Your task to perform on an android device: toggle notification dots Image 0: 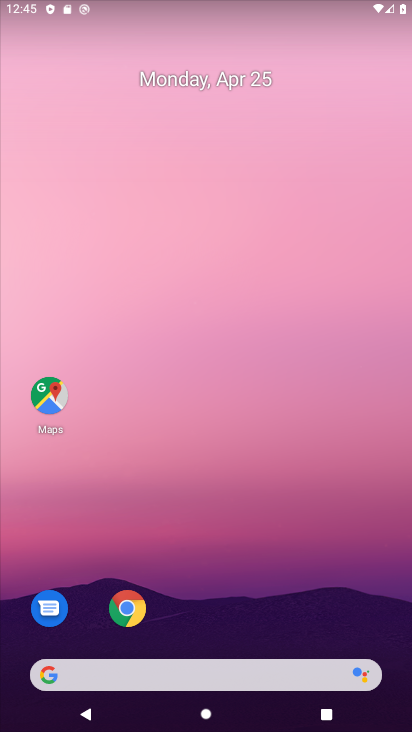
Step 0: drag from (139, 602) to (171, 125)
Your task to perform on an android device: toggle notification dots Image 1: 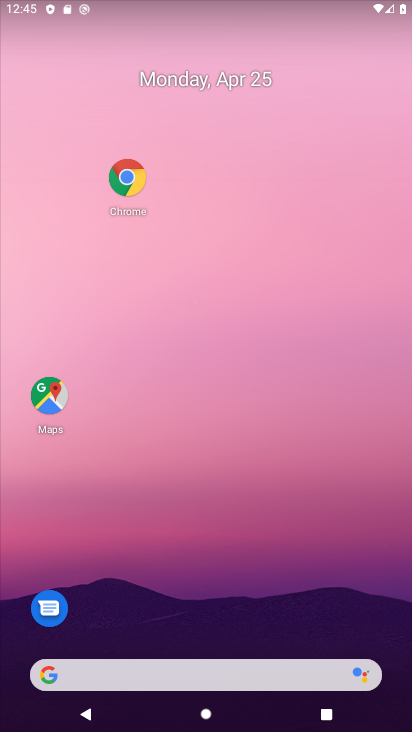
Step 1: drag from (288, 537) to (305, 58)
Your task to perform on an android device: toggle notification dots Image 2: 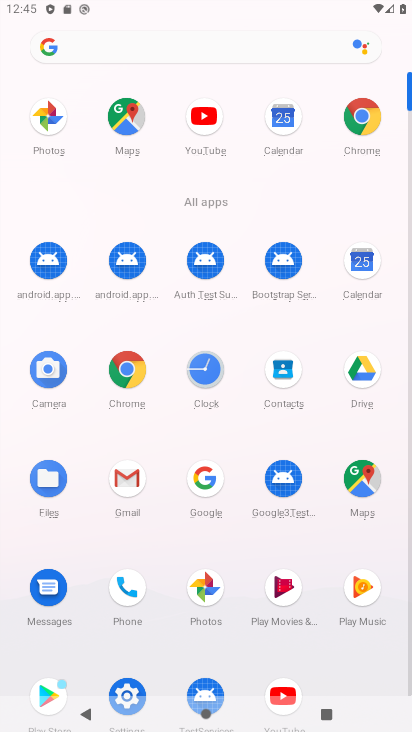
Step 2: click (131, 691)
Your task to perform on an android device: toggle notification dots Image 3: 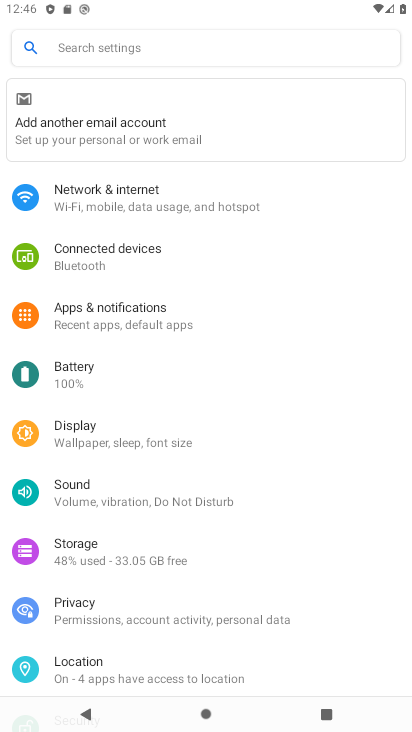
Step 3: drag from (281, 580) to (240, 232)
Your task to perform on an android device: toggle notification dots Image 4: 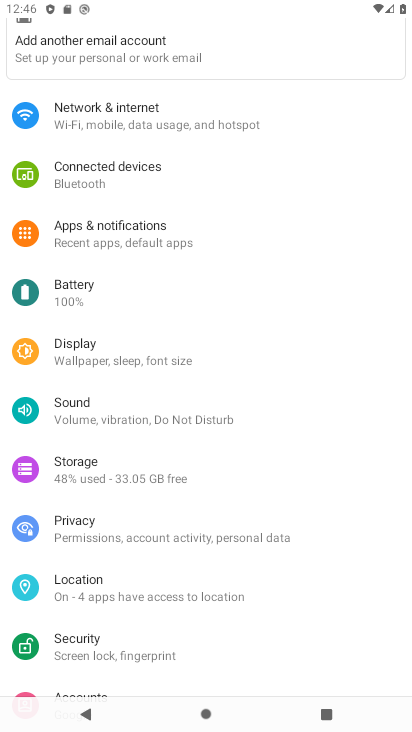
Step 4: drag from (240, 555) to (209, 99)
Your task to perform on an android device: toggle notification dots Image 5: 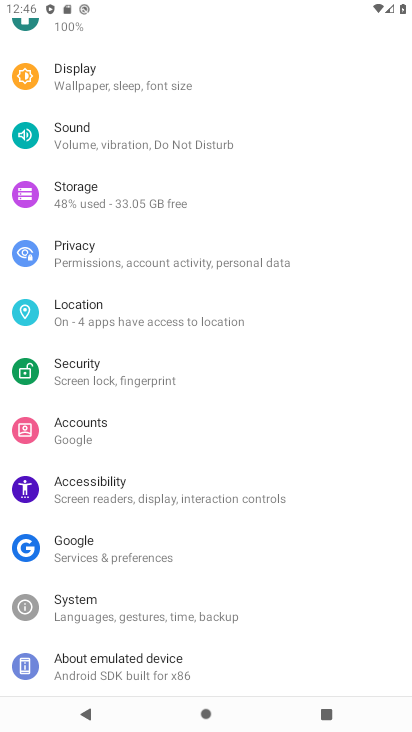
Step 5: drag from (154, 163) to (155, 636)
Your task to perform on an android device: toggle notification dots Image 6: 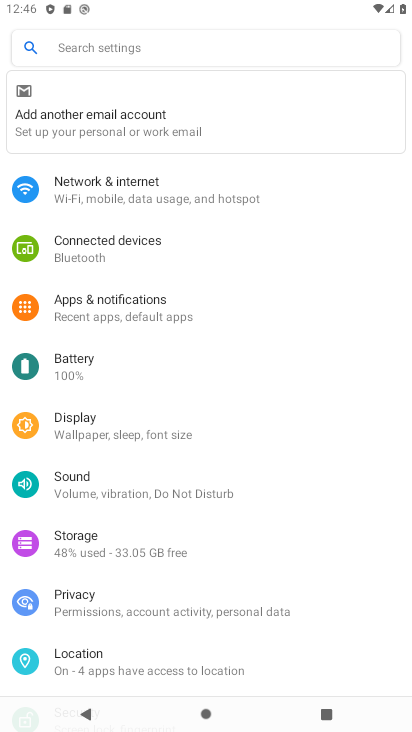
Step 6: click (120, 308)
Your task to perform on an android device: toggle notification dots Image 7: 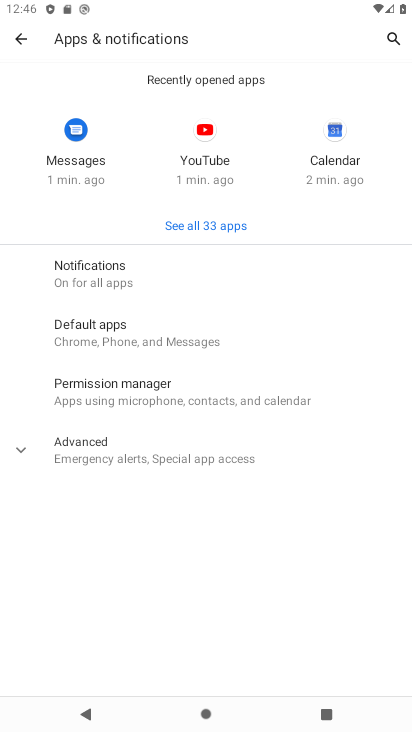
Step 7: click (101, 454)
Your task to perform on an android device: toggle notification dots Image 8: 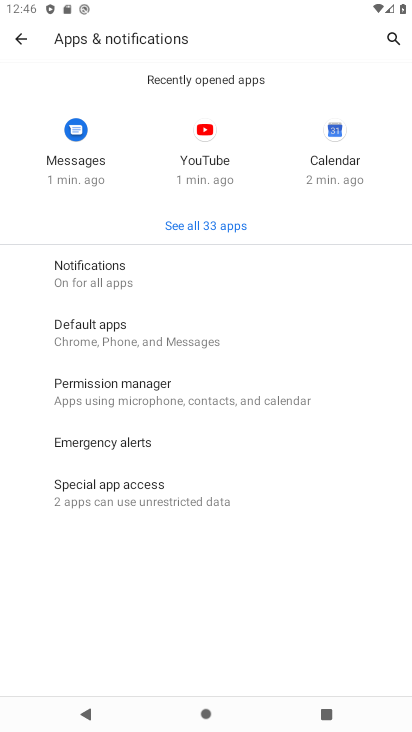
Step 8: click (103, 281)
Your task to perform on an android device: toggle notification dots Image 9: 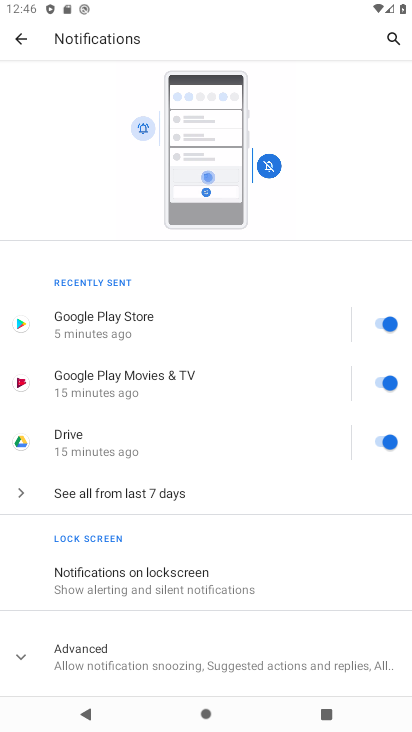
Step 9: drag from (251, 603) to (258, 164)
Your task to perform on an android device: toggle notification dots Image 10: 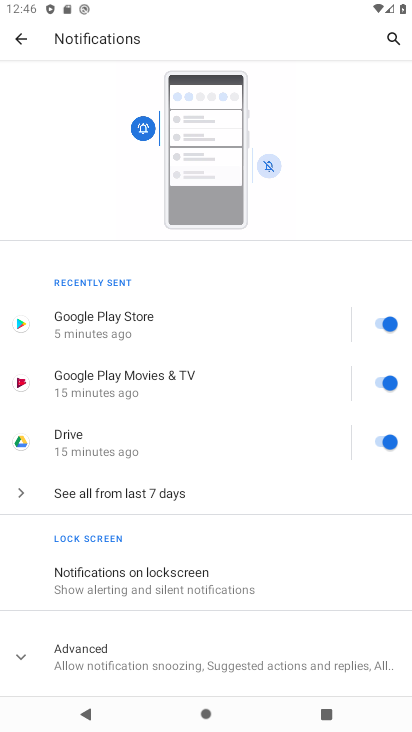
Step 10: click (134, 645)
Your task to perform on an android device: toggle notification dots Image 11: 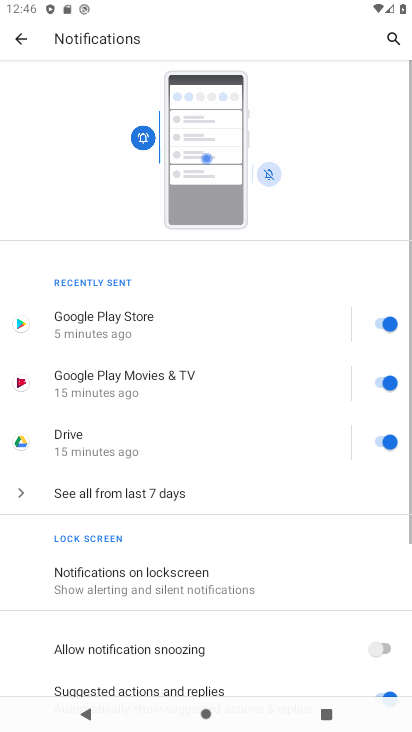
Step 11: drag from (227, 624) to (209, 148)
Your task to perform on an android device: toggle notification dots Image 12: 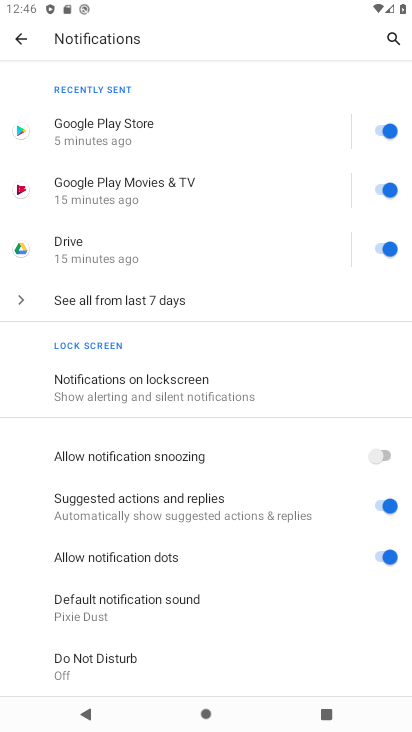
Step 12: click (379, 553)
Your task to perform on an android device: toggle notification dots Image 13: 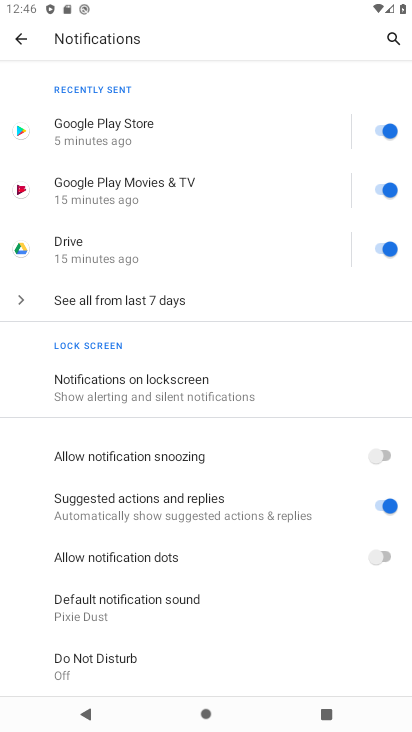
Step 13: task complete